Your task to perform on an android device: turn on improve location accuracy Image 0: 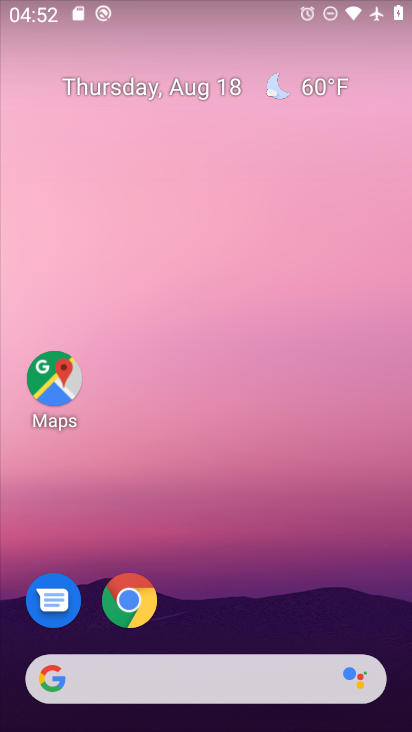
Step 0: press home button
Your task to perform on an android device: turn on improve location accuracy Image 1: 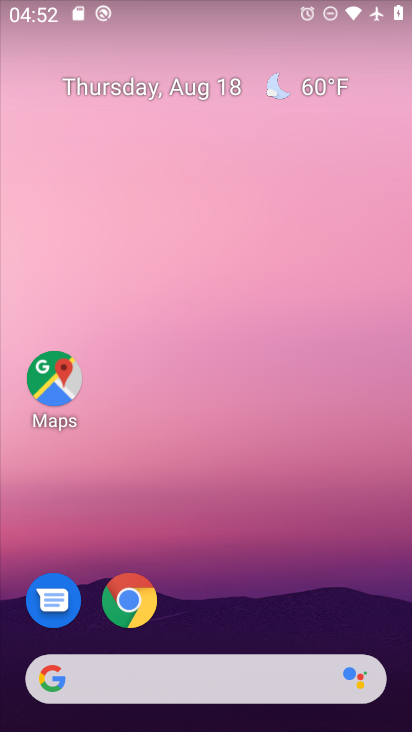
Step 1: drag from (223, 637) to (213, 113)
Your task to perform on an android device: turn on improve location accuracy Image 2: 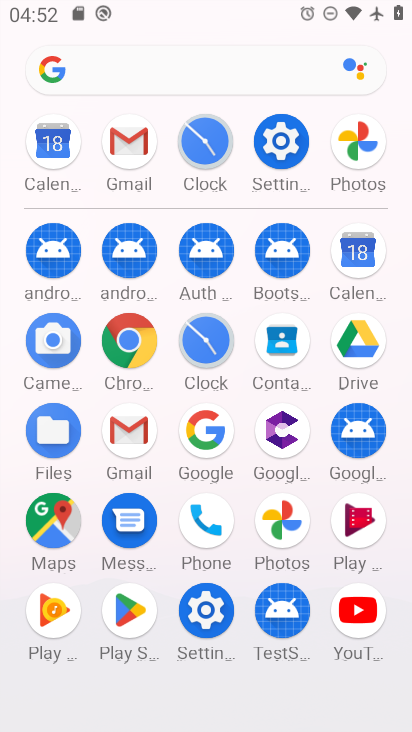
Step 2: click (287, 137)
Your task to perform on an android device: turn on improve location accuracy Image 3: 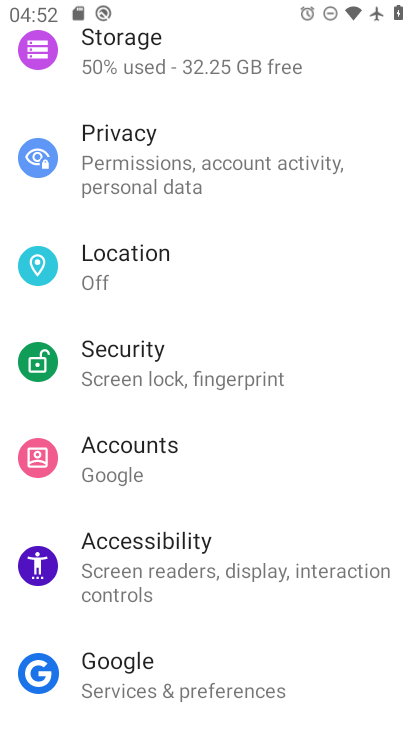
Step 3: click (118, 262)
Your task to perform on an android device: turn on improve location accuracy Image 4: 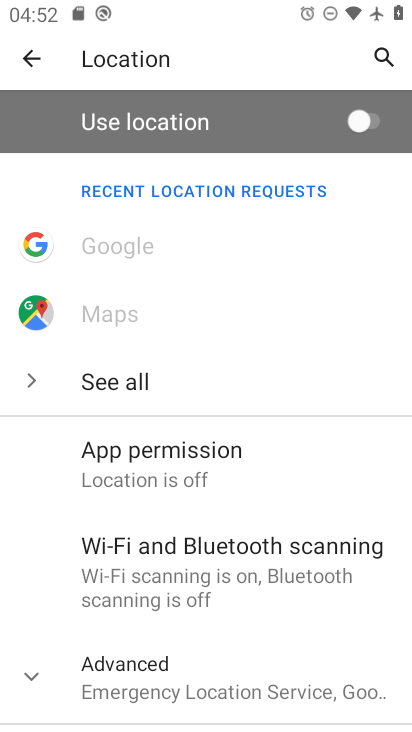
Step 4: click (180, 688)
Your task to perform on an android device: turn on improve location accuracy Image 5: 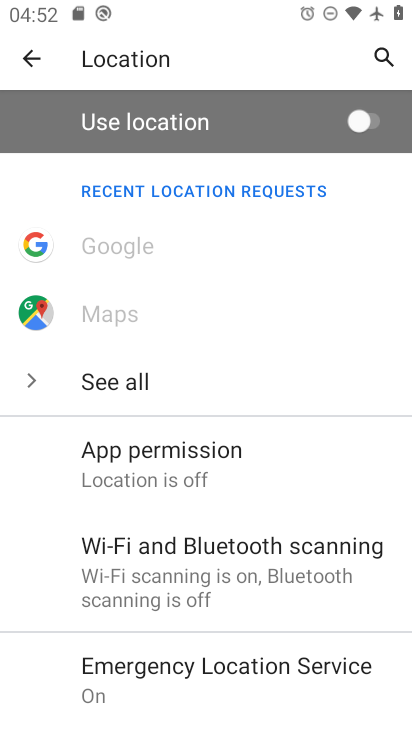
Step 5: drag from (327, 703) to (319, 177)
Your task to perform on an android device: turn on improve location accuracy Image 6: 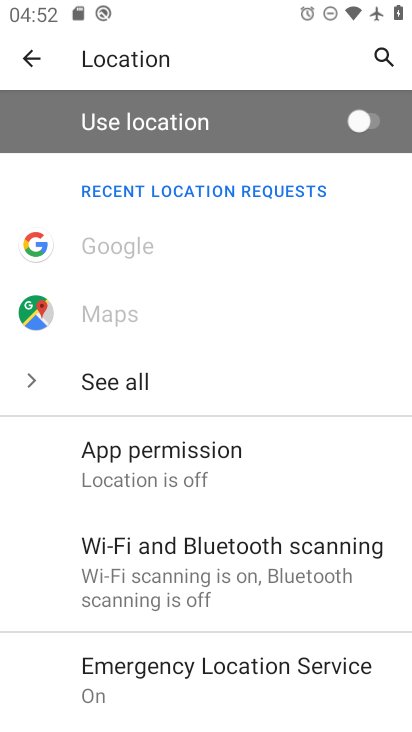
Step 6: drag from (232, 655) to (319, 197)
Your task to perform on an android device: turn on improve location accuracy Image 7: 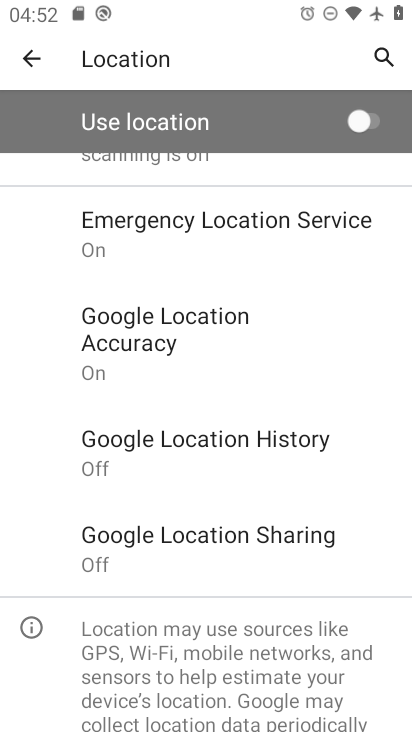
Step 7: click (142, 326)
Your task to perform on an android device: turn on improve location accuracy Image 8: 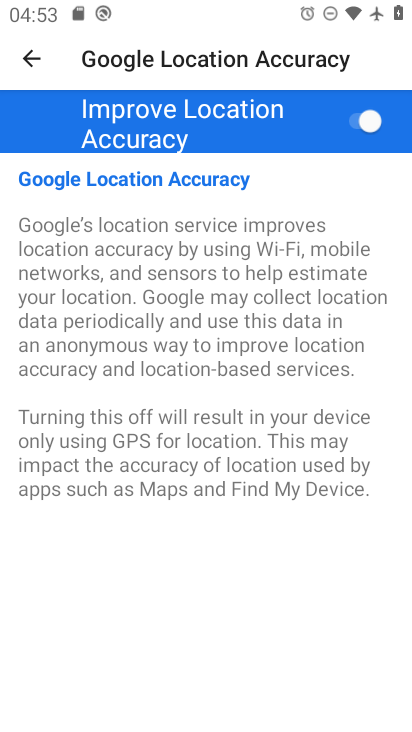
Step 8: task complete